Your task to perform on an android device: Go to Google Image 0: 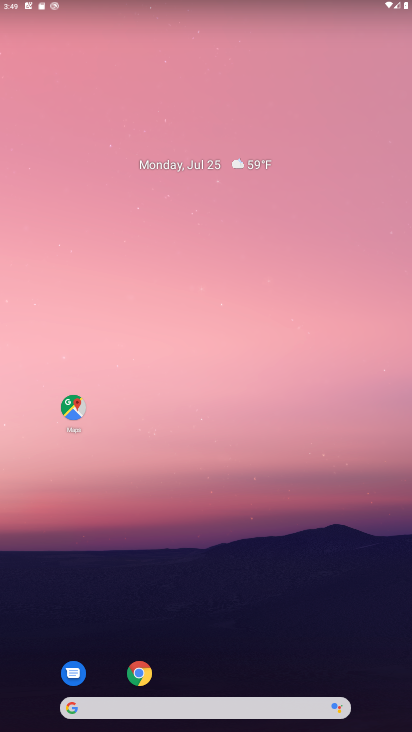
Step 0: drag from (337, 602) to (229, 94)
Your task to perform on an android device: Go to Google Image 1: 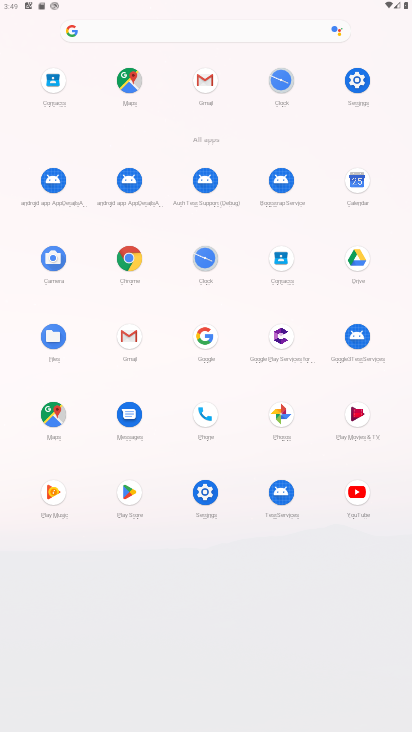
Step 1: click (206, 340)
Your task to perform on an android device: Go to Google Image 2: 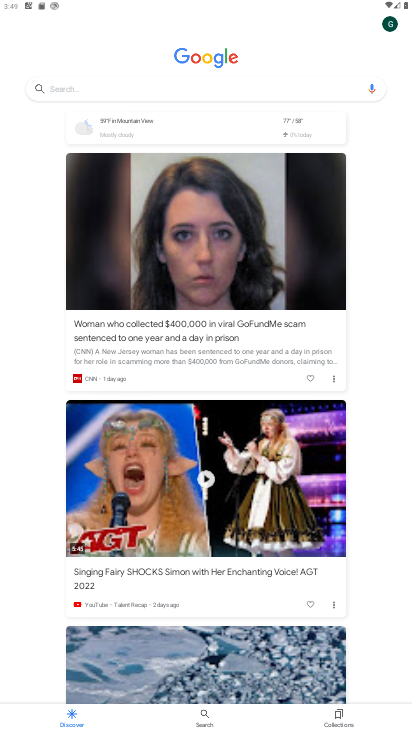
Step 2: task complete